Your task to perform on an android device: Open Google Maps Image 0: 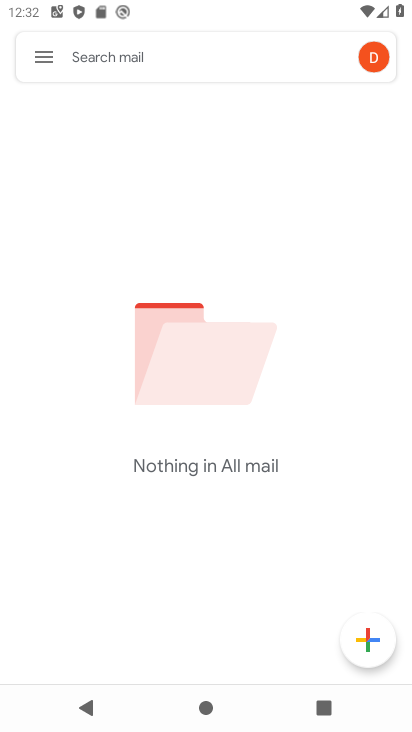
Step 0: press home button
Your task to perform on an android device: Open Google Maps Image 1: 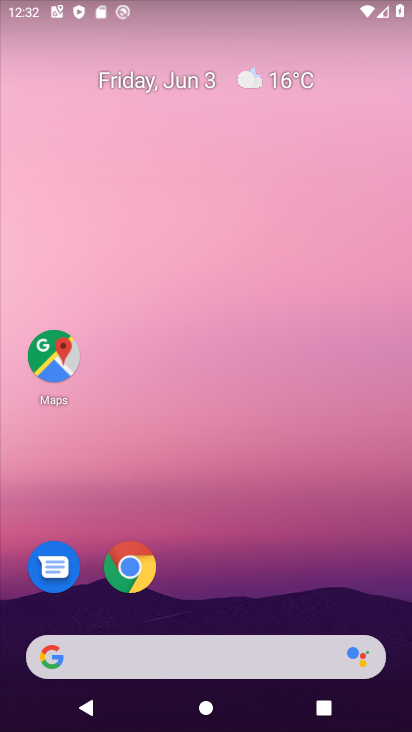
Step 1: click (55, 350)
Your task to perform on an android device: Open Google Maps Image 2: 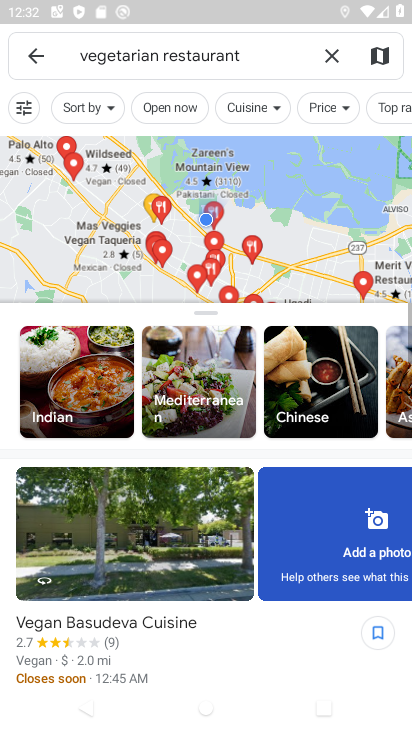
Step 2: click (35, 63)
Your task to perform on an android device: Open Google Maps Image 3: 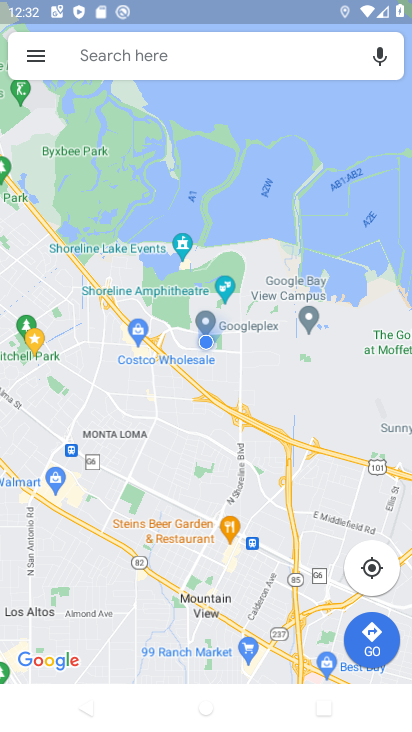
Step 3: task complete